Your task to perform on an android device: View the shopping cart on walmart.com. Search for "logitech g pro" on walmart.com, select the first entry, and add it to the cart. Image 0: 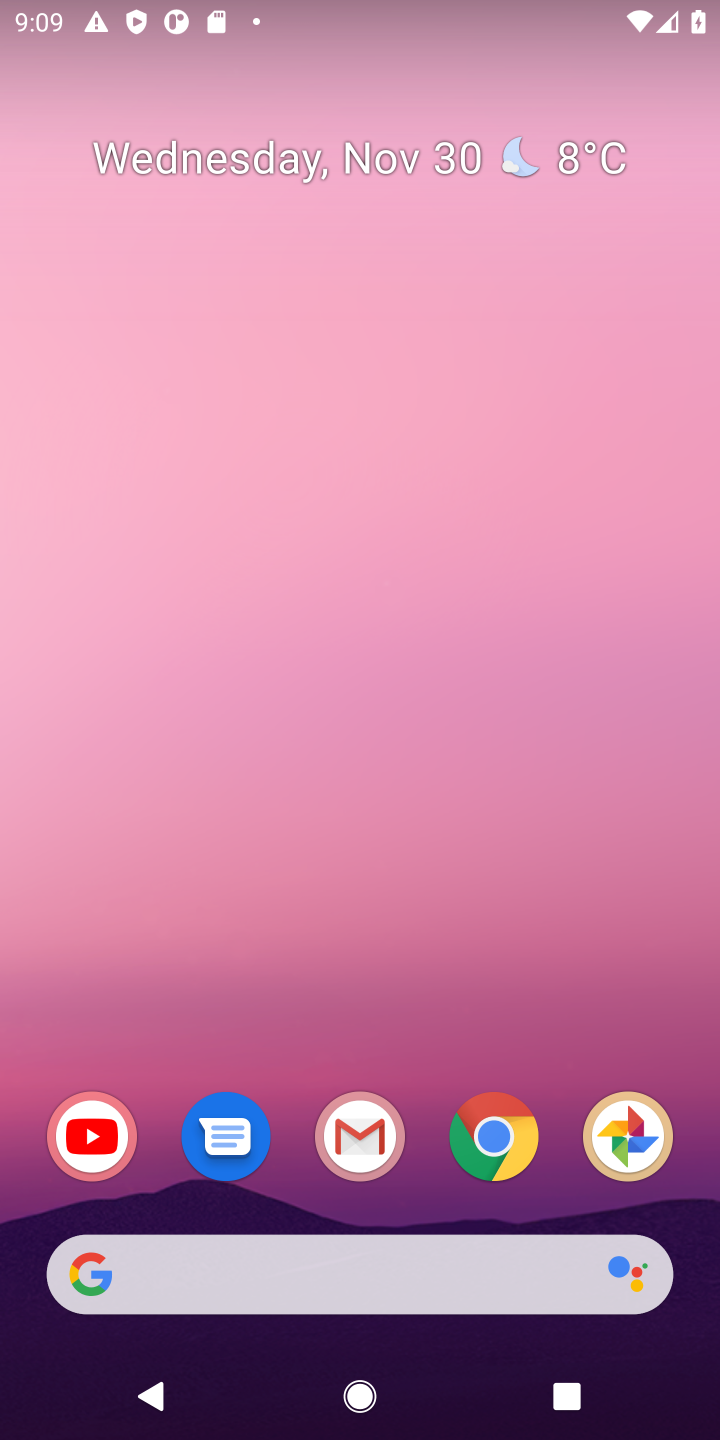
Step 0: click (499, 1134)
Your task to perform on an android device: View the shopping cart on walmart.com. Search for "logitech g pro" on walmart.com, select the first entry, and add it to the cart. Image 1: 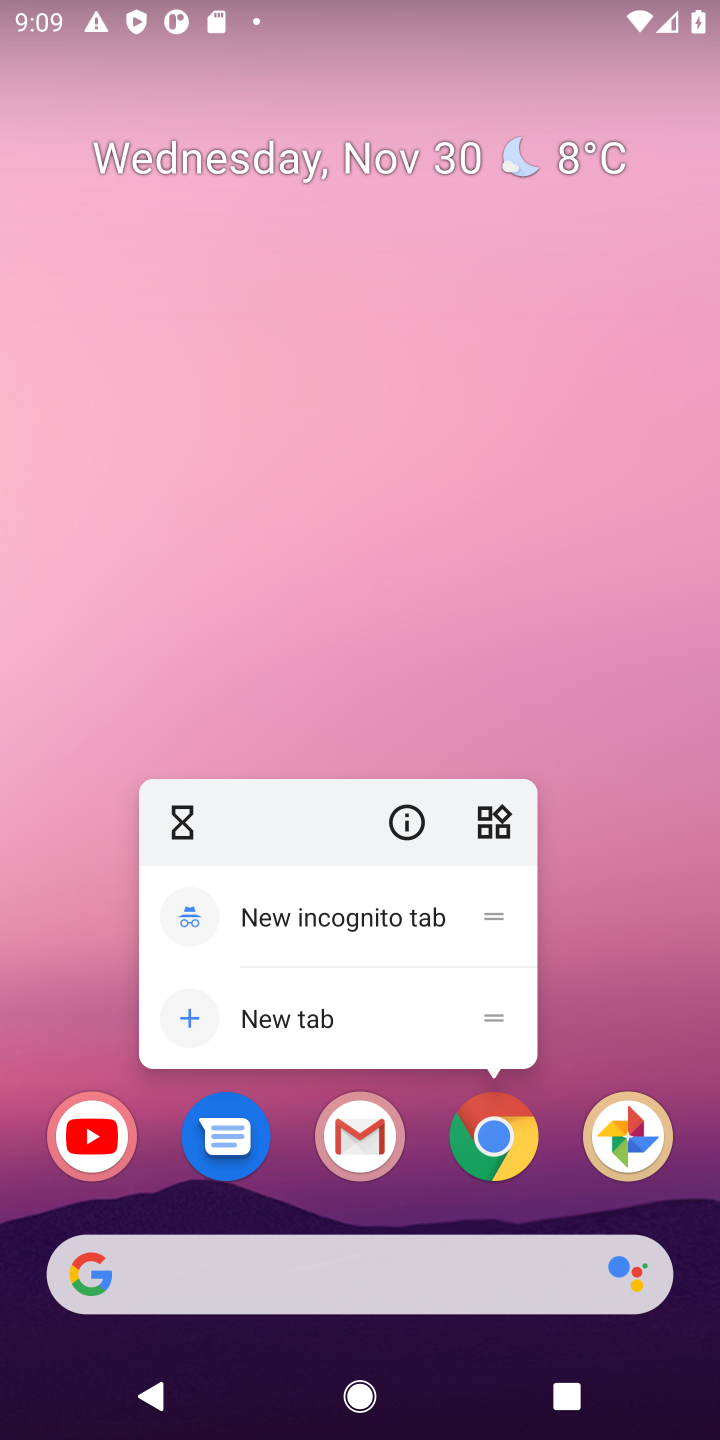
Step 1: click (499, 1134)
Your task to perform on an android device: View the shopping cart on walmart.com. Search for "logitech g pro" on walmart.com, select the first entry, and add it to the cart. Image 2: 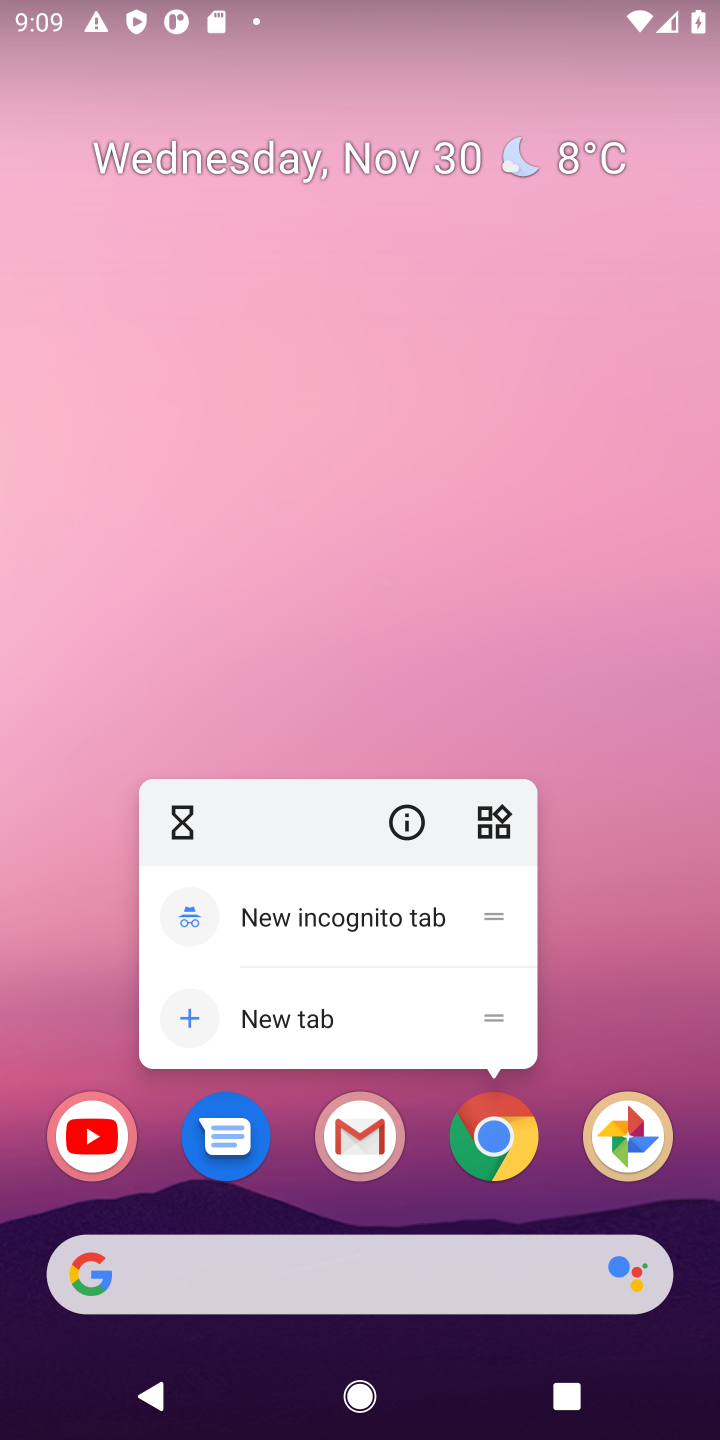
Step 2: click (497, 1143)
Your task to perform on an android device: View the shopping cart on walmart.com. Search for "logitech g pro" on walmart.com, select the first entry, and add it to the cart. Image 3: 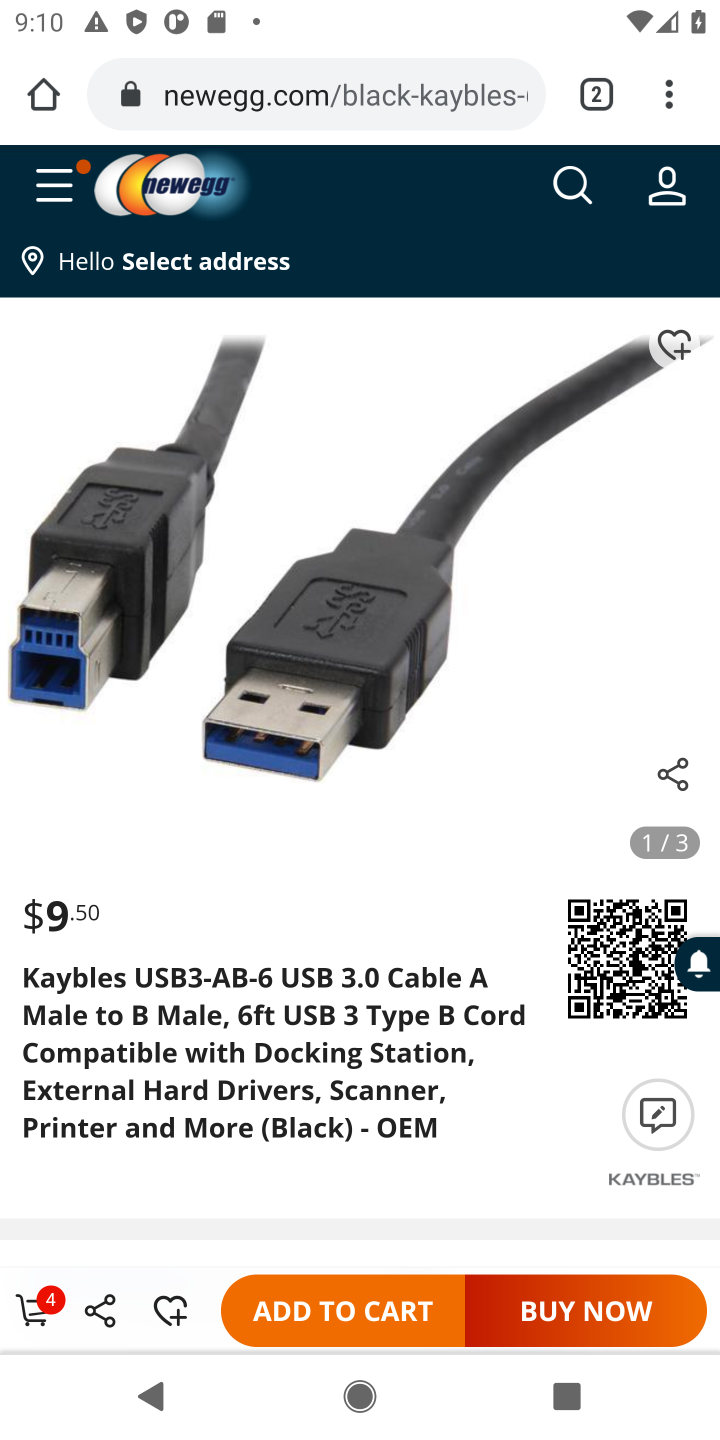
Step 3: click (324, 106)
Your task to perform on an android device: View the shopping cart on walmart.com. Search for "logitech g pro" on walmart.com, select the first entry, and add it to the cart. Image 4: 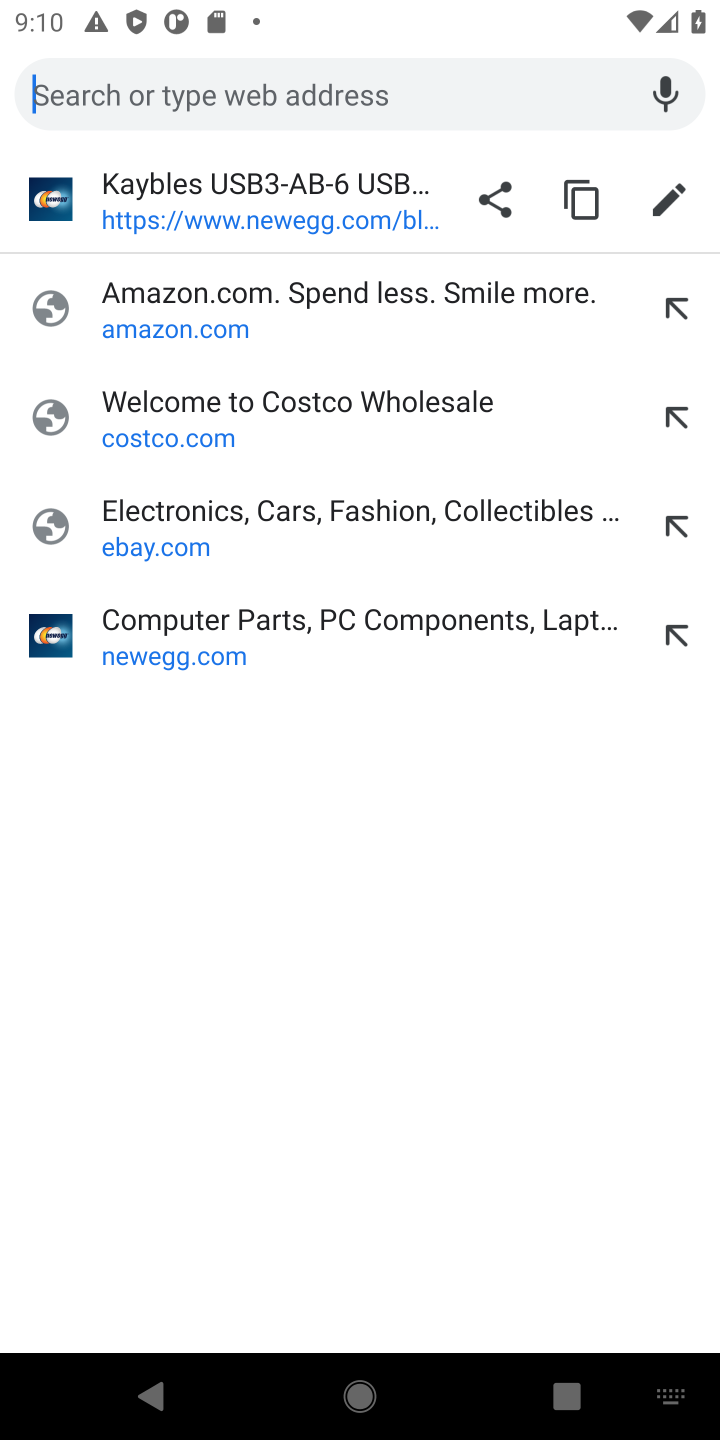
Step 4: type "walmart.com"
Your task to perform on an android device: View the shopping cart on walmart.com. Search for "logitech g pro" on walmart.com, select the first entry, and add it to the cart. Image 5: 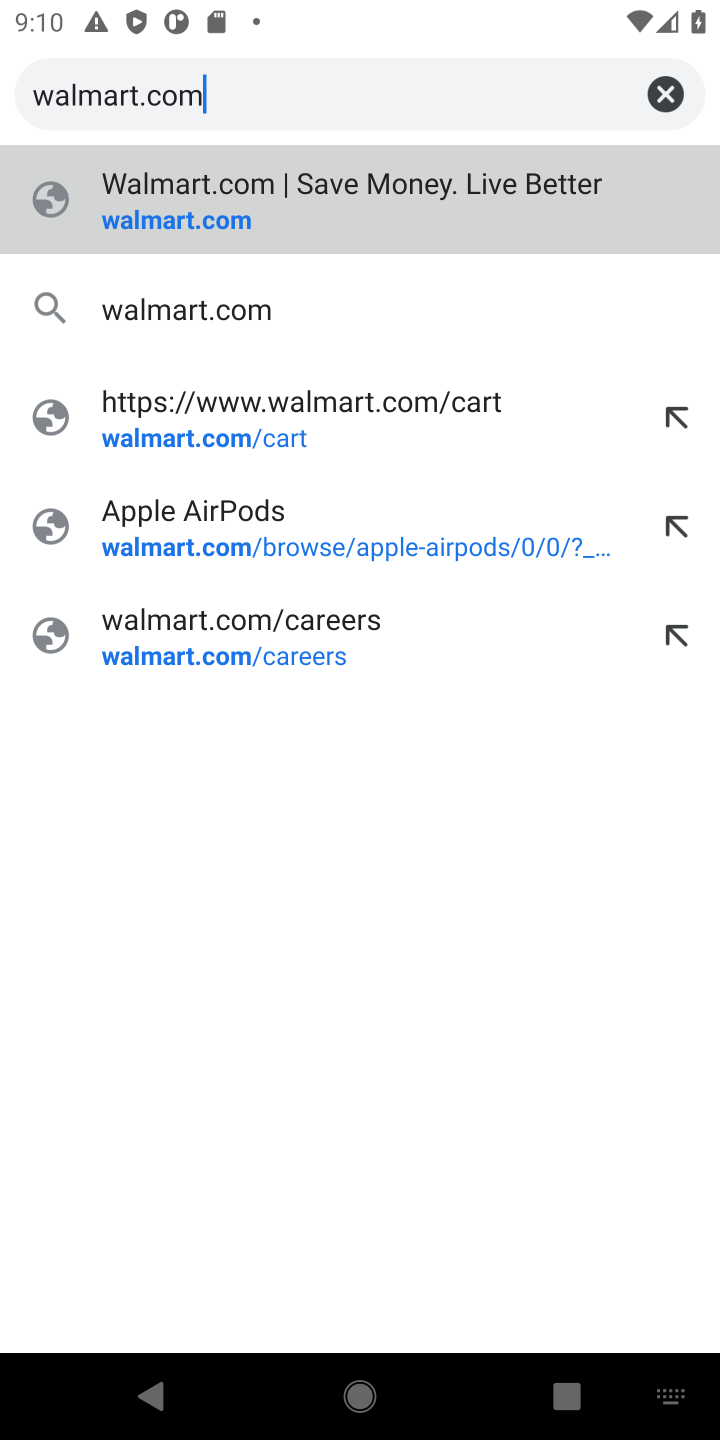
Step 5: click (184, 227)
Your task to perform on an android device: View the shopping cart on walmart.com. Search for "logitech g pro" on walmart.com, select the first entry, and add it to the cart. Image 6: 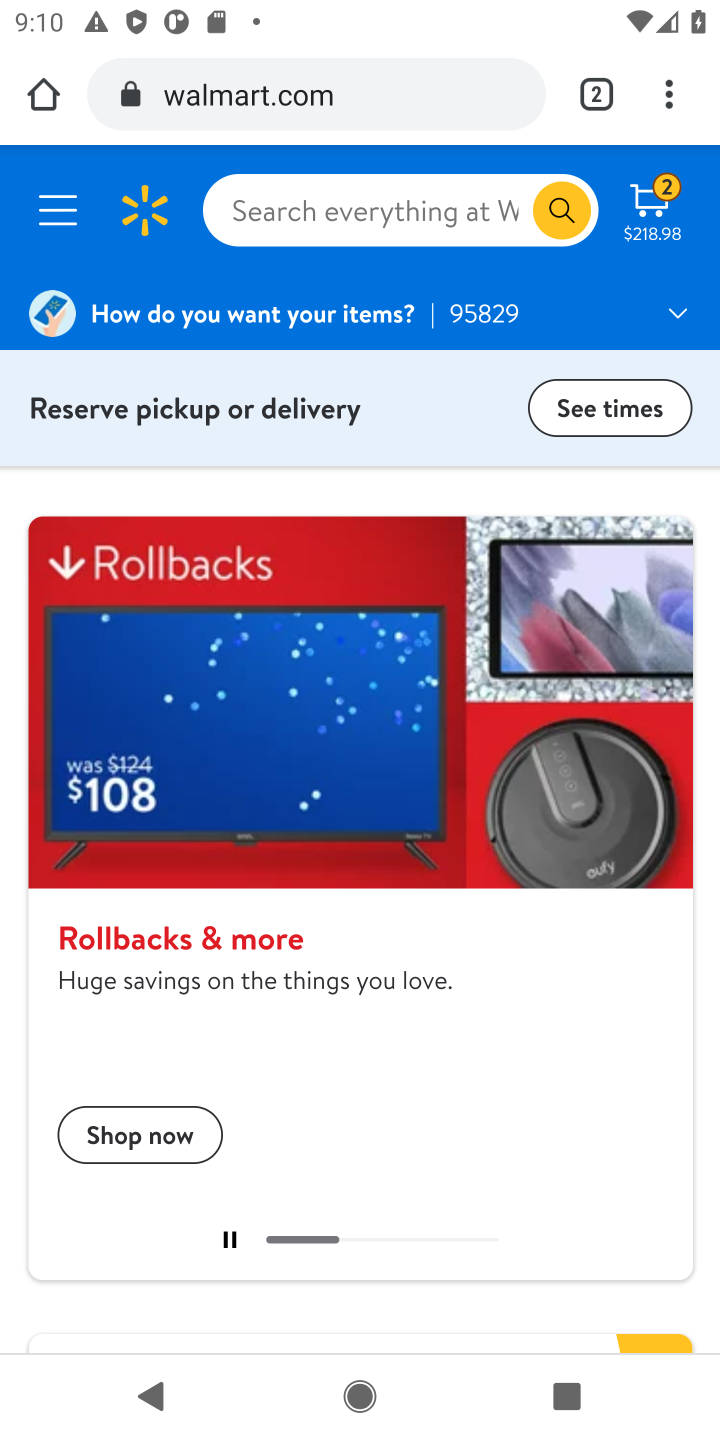
Step 6: click (645, 223)
Your task to perform on an android device: View the shopping cart on walmart.com. Search for "logitech g pro" on walmart.com, select the first entry, and add it to the cart. Image 7: 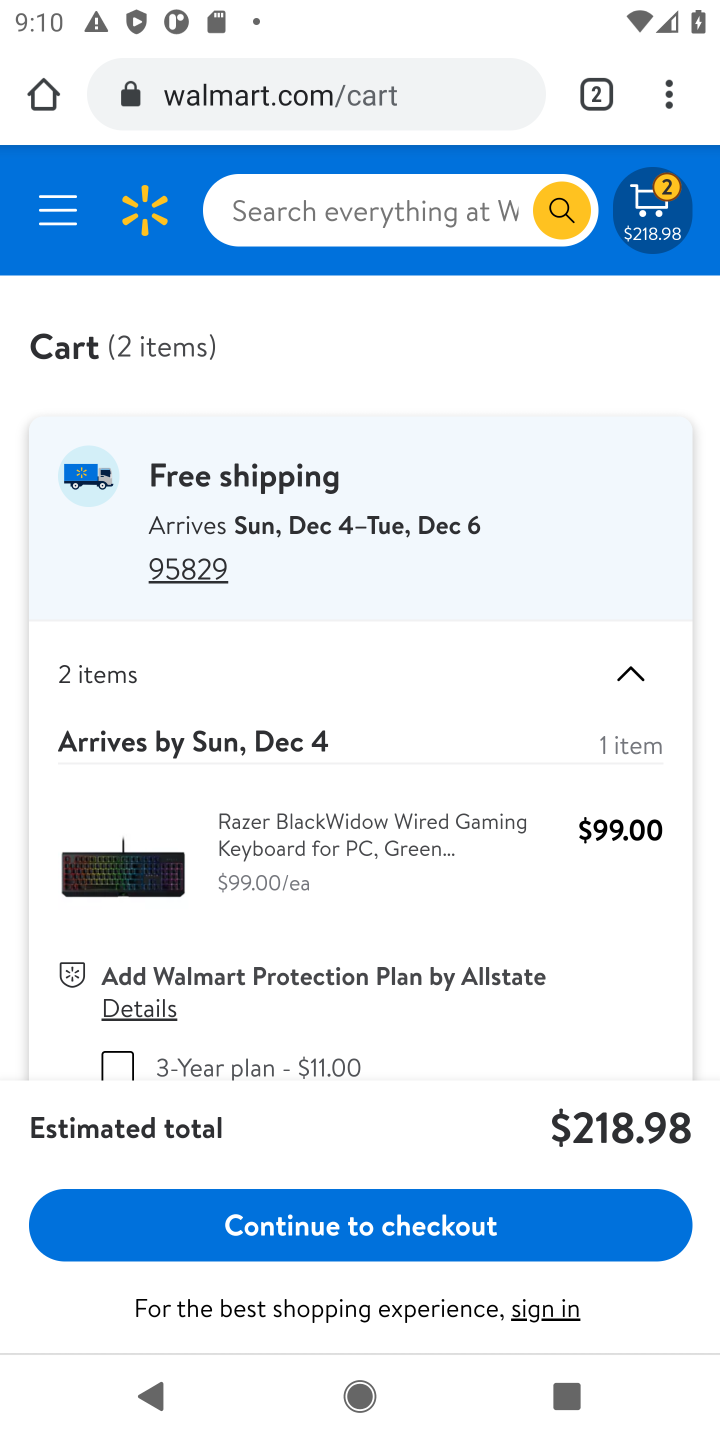
Step 7: click (354, 198)
Your task to perform on an android device: View the shopping cart on walmart.com. Search for "logitech g pro" on walmart.com, select the first entry, and add it to the cart. Image 8: 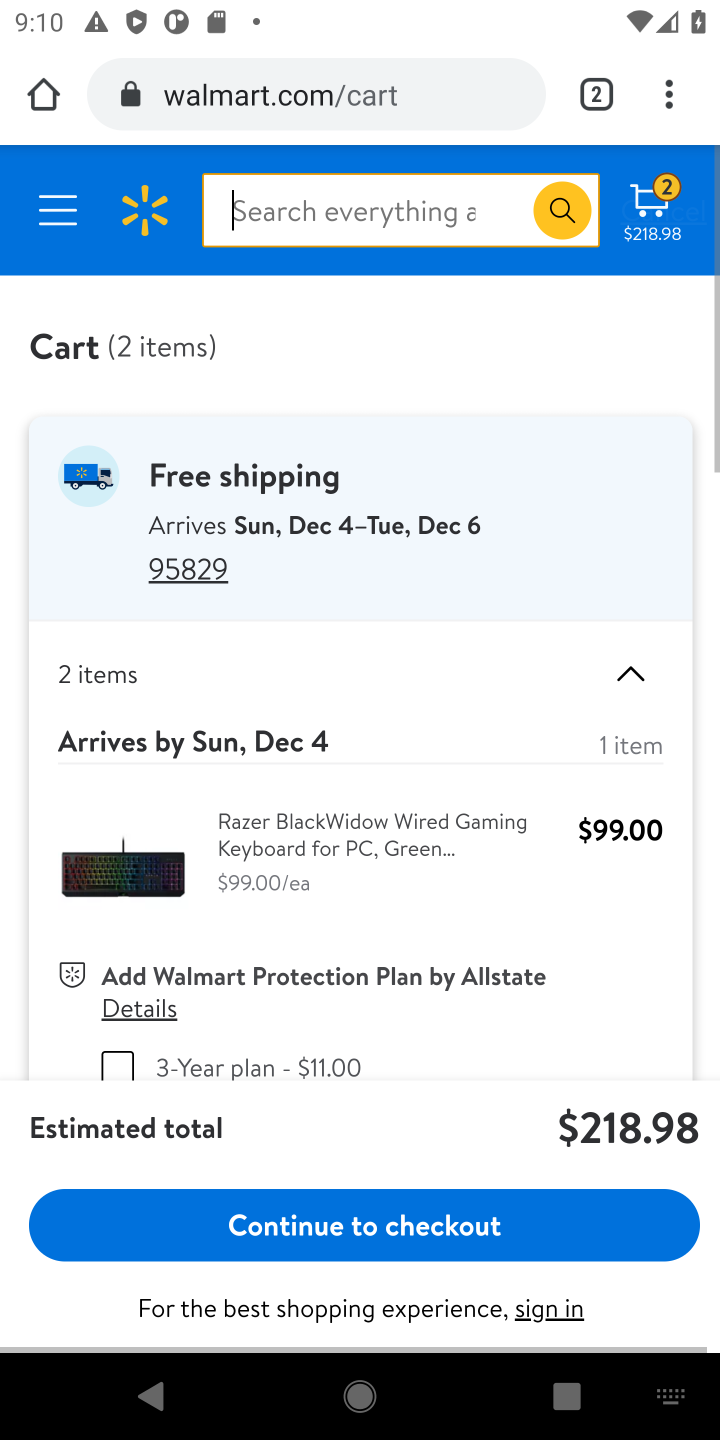
Step 8: click (354, 198)
Your task to perform on an android device: View the shopping cart on walmart.com. Search for "logitech g pro" on walmart.com, select the first entry, and add it to the cart. Image 9: 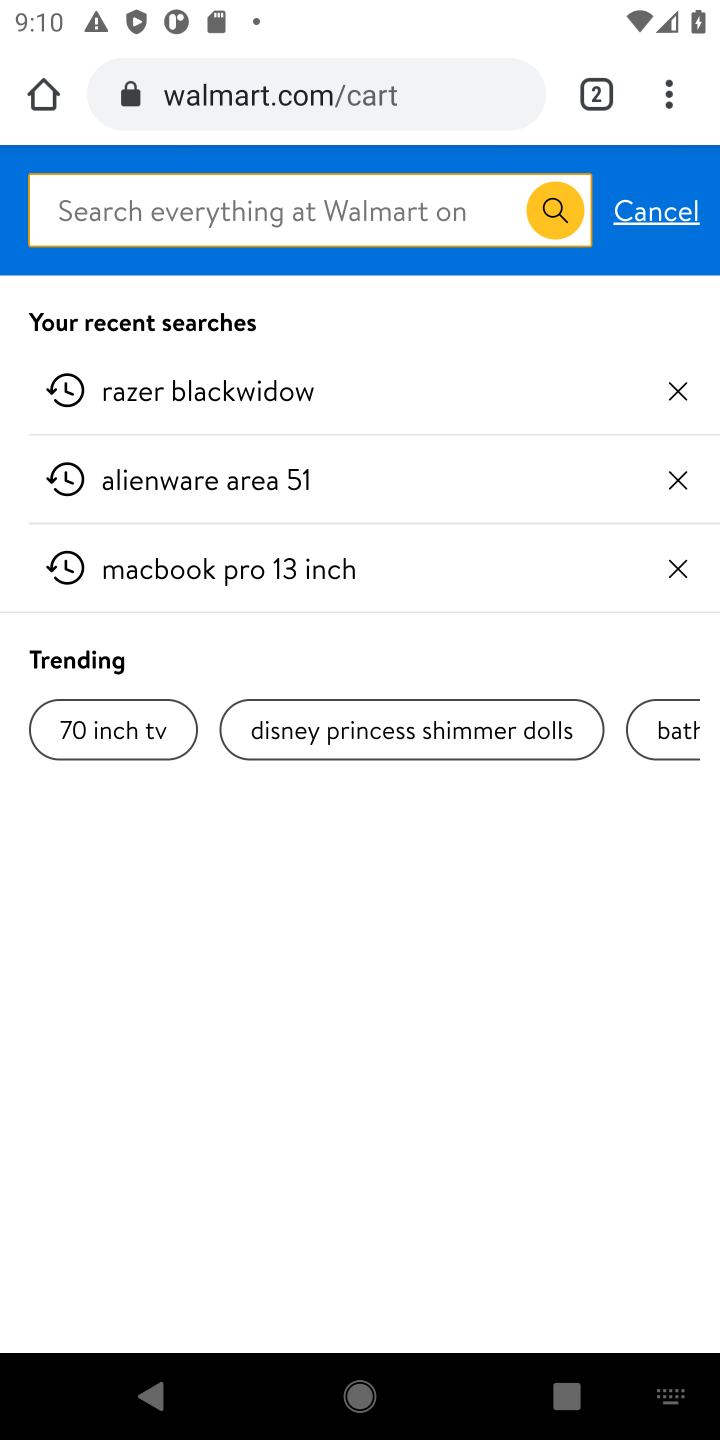
Step 9: type "logitech g pro"
Your task to perform on an android device: View the shopping cart on walmart.com. Search for "logitech g pro" on walmart.com, select the first entry, and add it to the cart. Image 10: 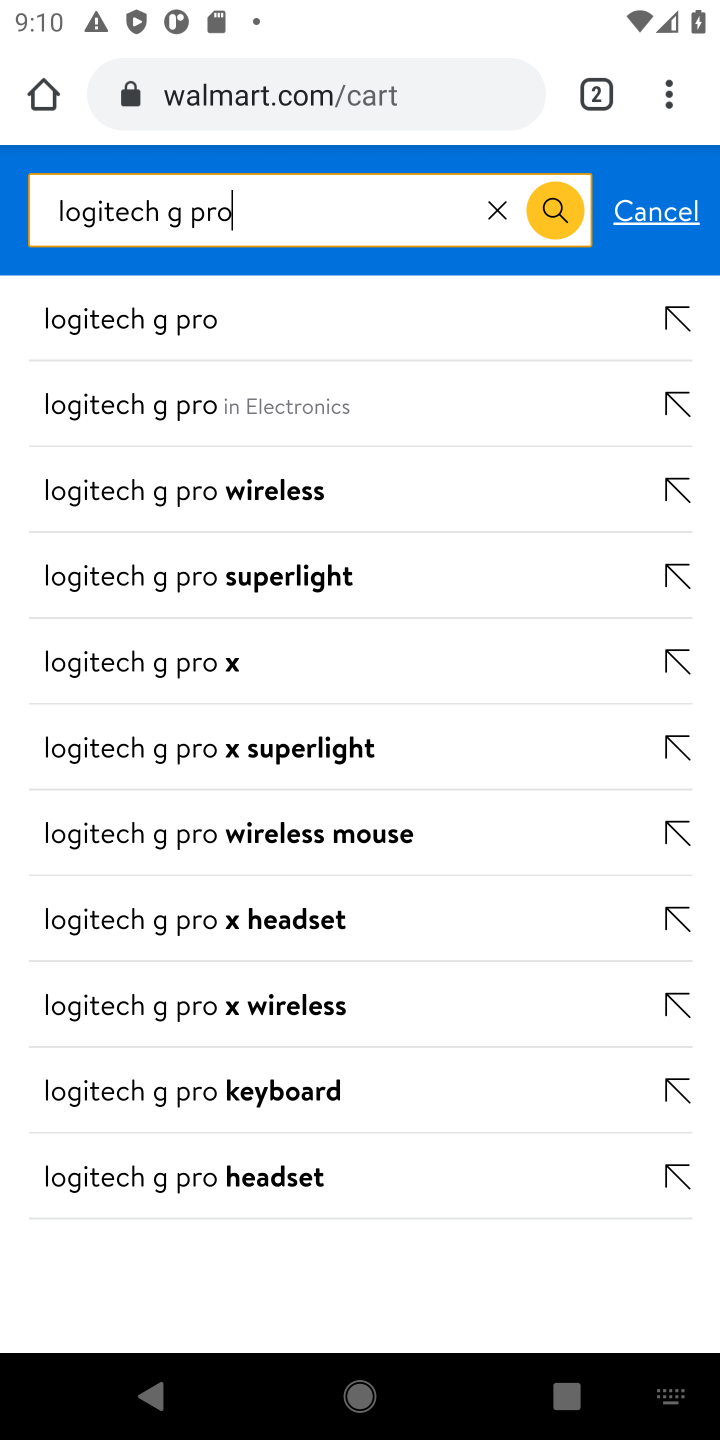
Step 10: click (144, 330)
Your task to perform on an android device: View the shopping cart on walmart.com. Search for "logitech g pro" on walmart.com, select the first entry, and add it to the cart. Image 11: 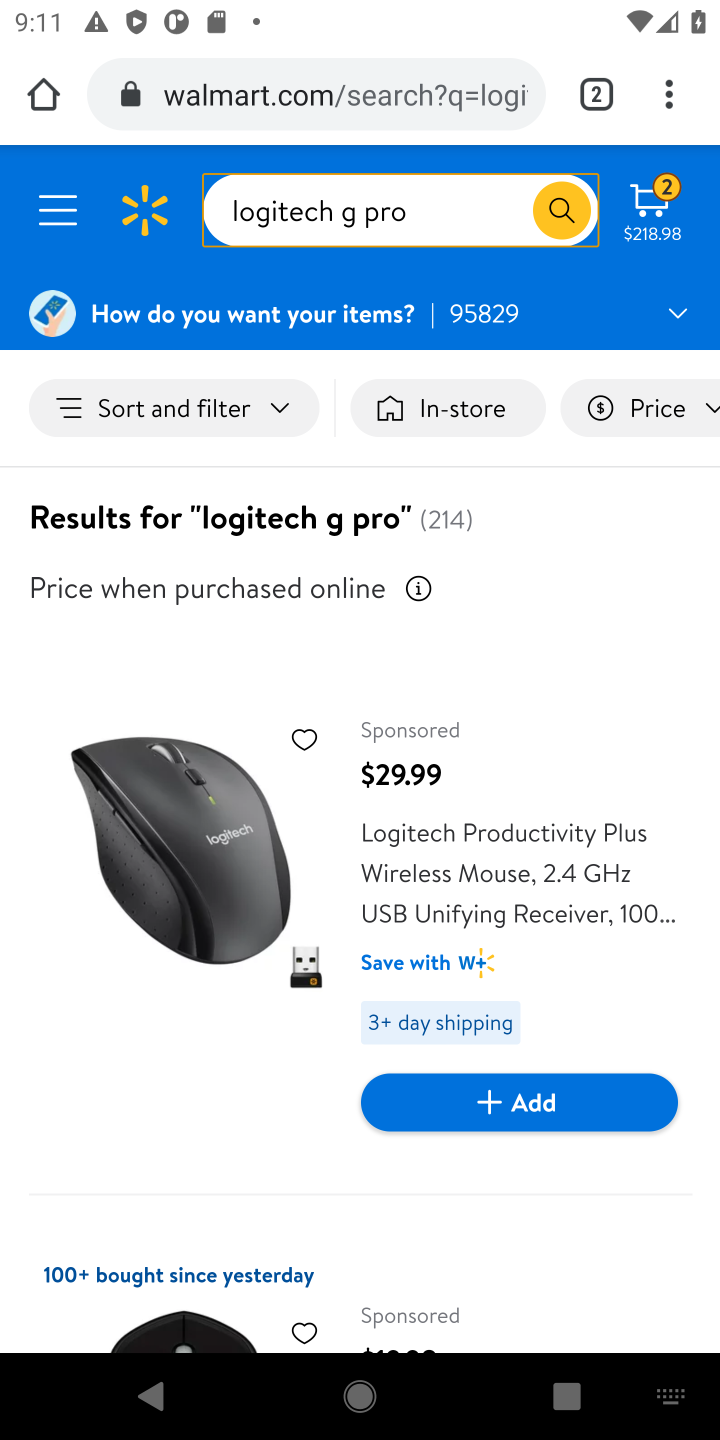
Step 11: task complete